Your task to perform on an android device: move a message to another label in the gmail app Image 0: 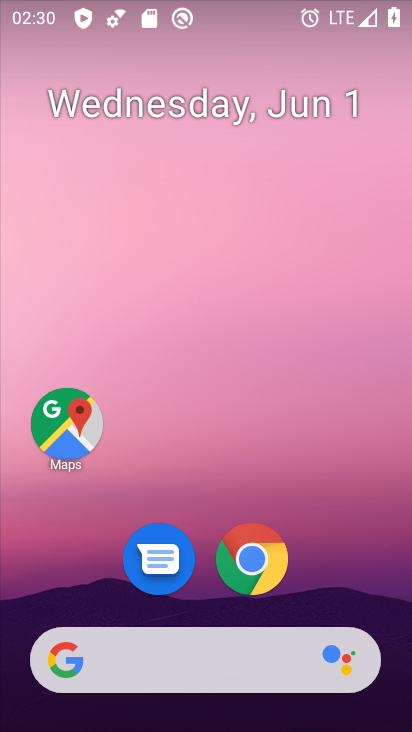
Step 0: press home button
Your task to perform on an android device: move a message to another label in the gmail app Image 1: 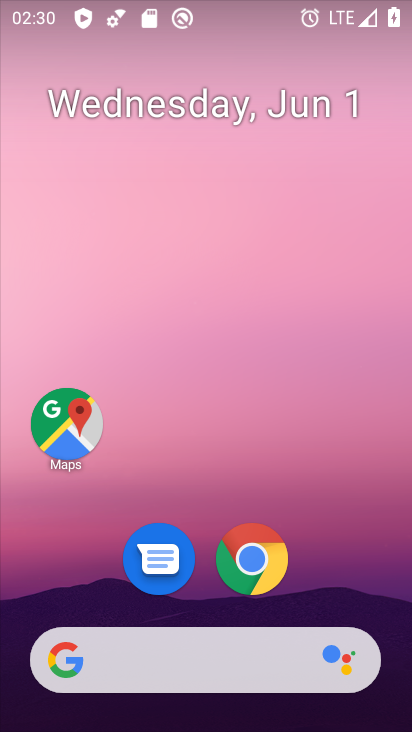
Step 1: drag from (299, 584) to (385, 39)
Your task to perform on an android device: move a message to another label in the gmail app Image 2: 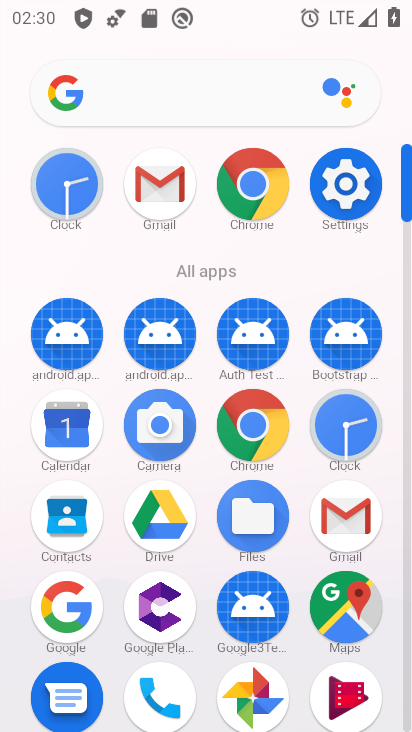
Step 2: click (153, 191)
Your task to perform on an android device: move a message to another label in the gmail app Image 3: 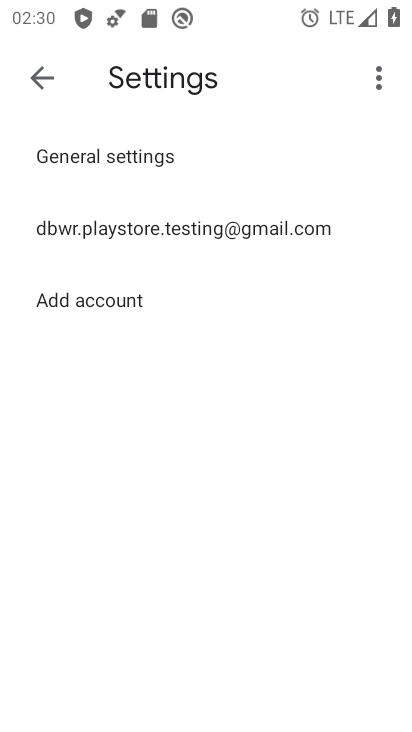
Step 3: click (47, 73)
Your task to perform on an android device: move a message to another label in the gmail app Image 4: 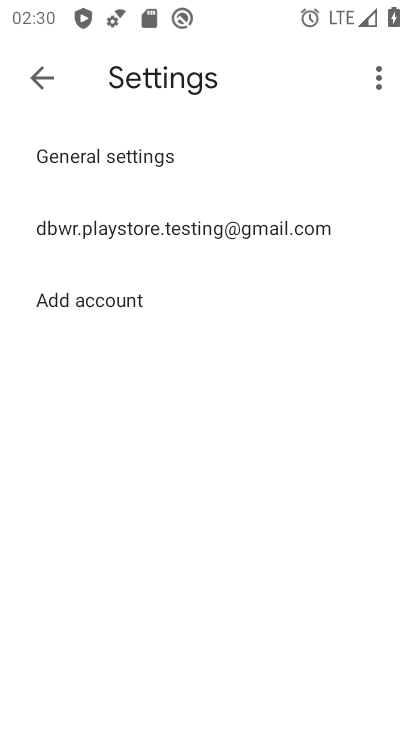
Step 4: click (37, 80)
Your task to perform on an android device: move a message to another label in the gmail app Image 5: 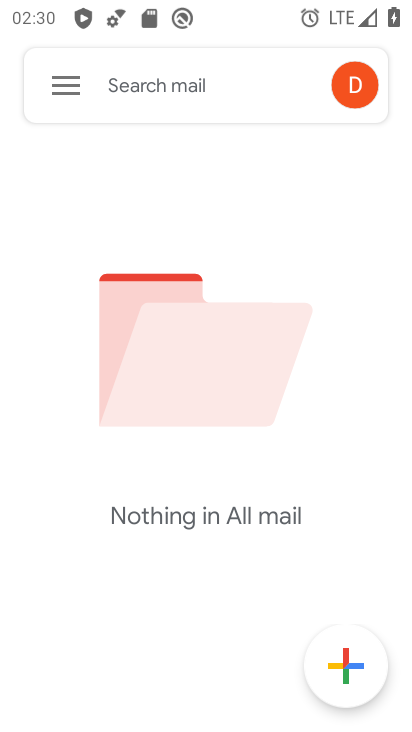
Step 5: click (58, 83)
Your task to perform on an android device: move a message to another label in the gmail app Image 6: 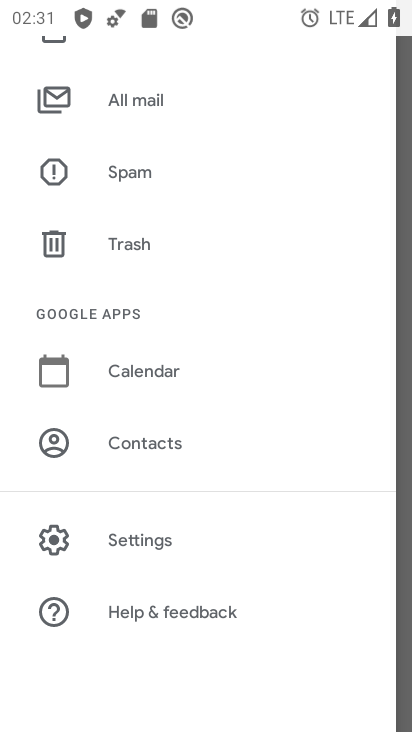
Step 6: click (137, 97)
Your task to perform on an android device: move a message to another label in the gmail app Image 7: 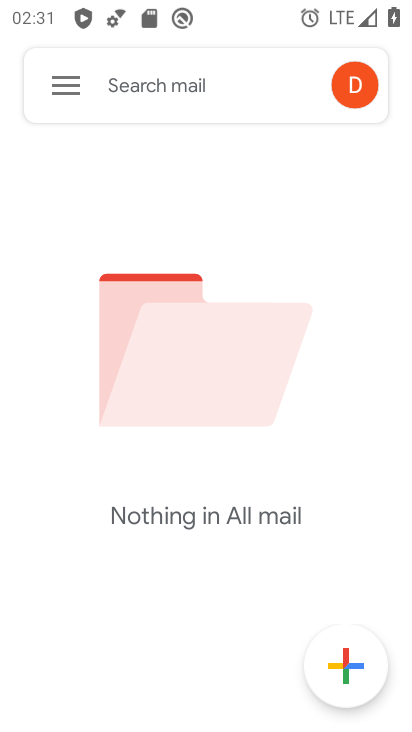
Step 7: task complete